Your task to perform on an android device: Go to settings Image 0: 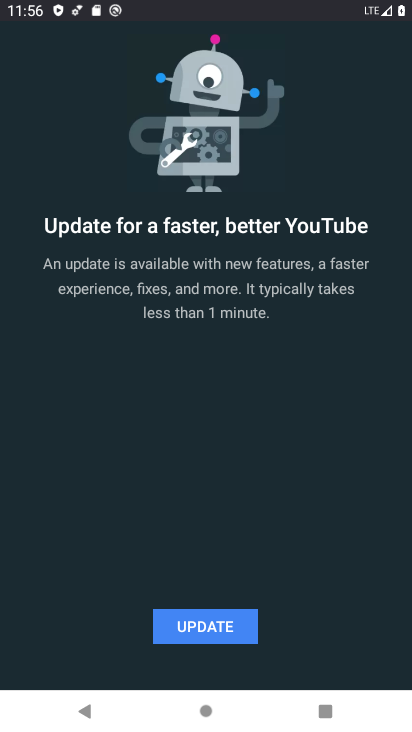
Step 0: press home button
Your task to perform on an android device: Go to settings Image 1: 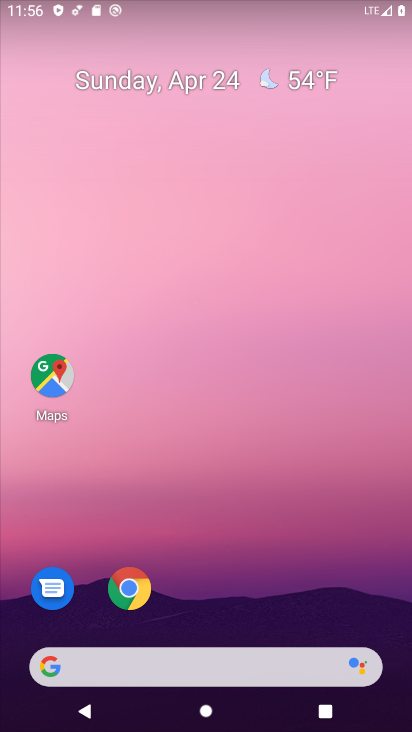
Step 1: drag from (199, 625) to (171, 76)
Your task to perform on an android device: Go to settings Image 2: 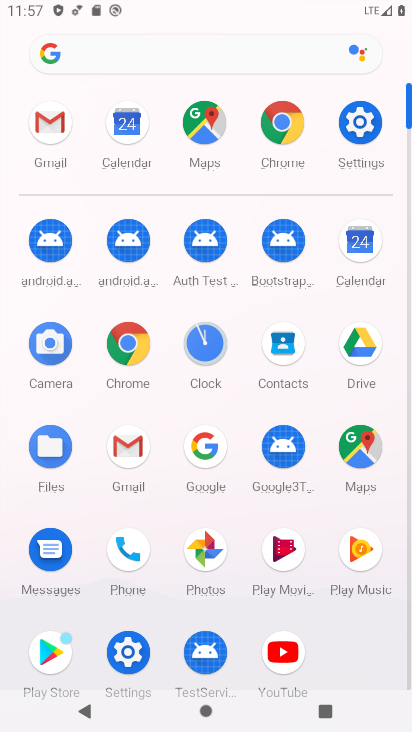
Step 2: click (128, 650)
Your task to perform on an android device: Go to settings Image 3: 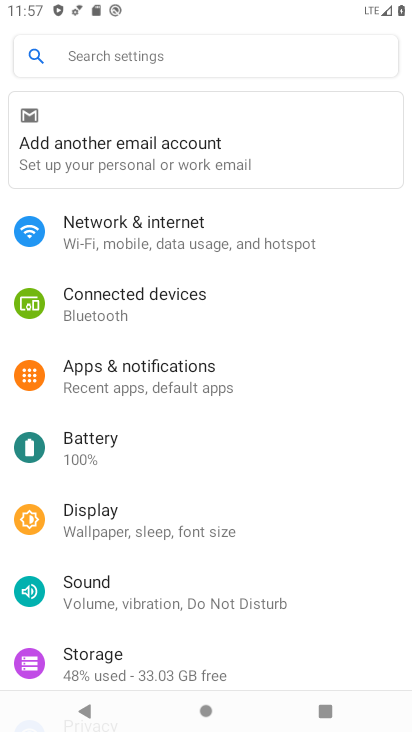
Step 3: task complete